Your task to perform on an android device: check battery use Image 0: 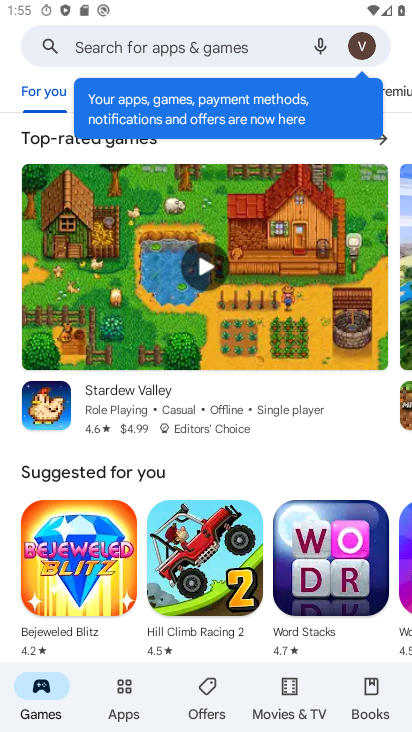
Step 0: press home button
Your task to perform on an android device: check battery use Image 1: 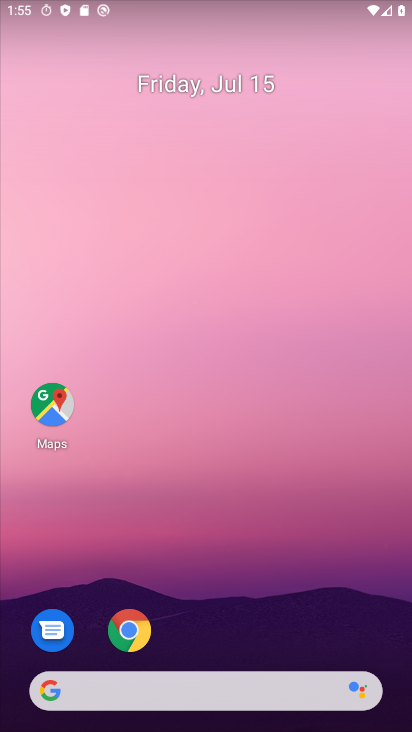
Step 1: drag from (208, 592) to (248, 189)
Your task to perform on an android device: check battery use Image 2: 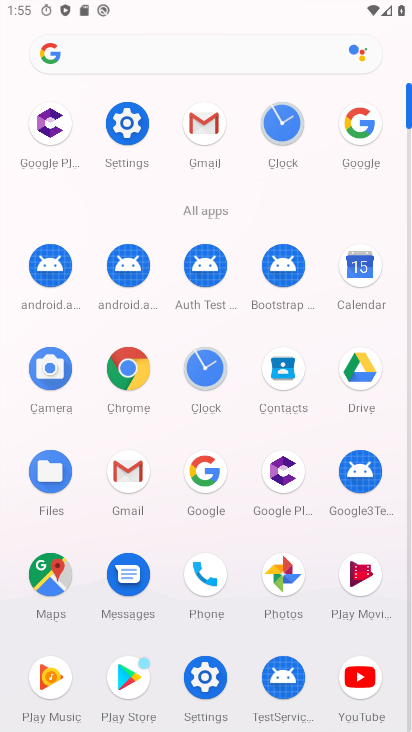
Step 2: click (140, 121)
Your task to perform on an android device: check battery use Image 3: 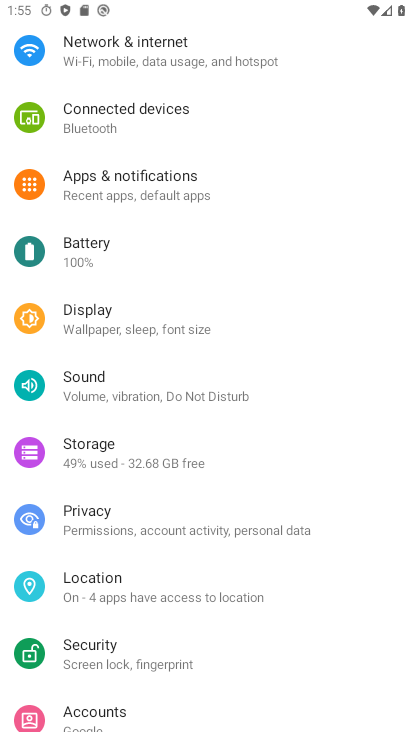
Step 3: click (136, 247)
Your task to perform on an android device: check battery use Image 4: 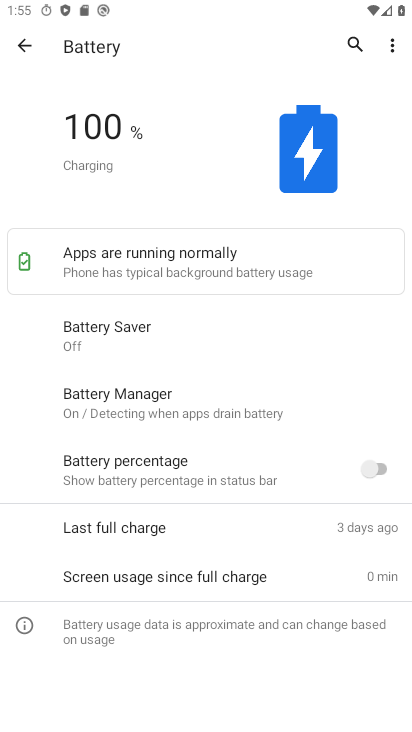
Step 4: click (386, 48)
Your task to perform on an android device: check battery use Image 5: 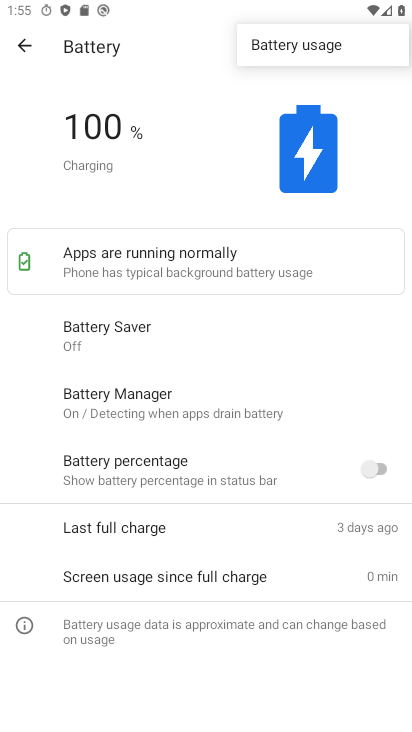
Step 5: click (349, 43)
Your task to perform on an android device: check battery use Image 6: 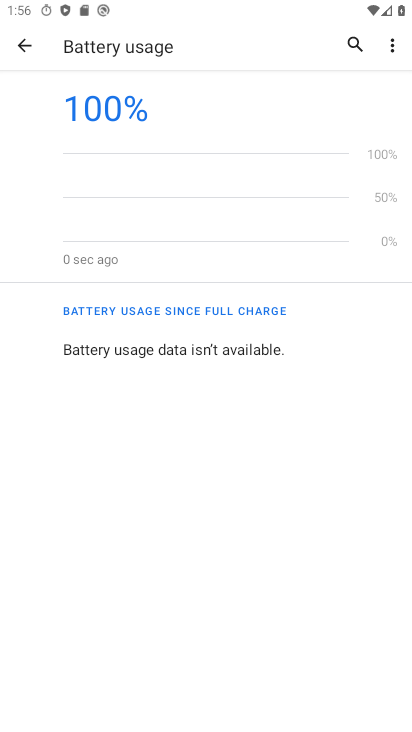
Step 6: task complete